Your task to perform on an android device: turn on notifications settings in the gmail app Image 0: 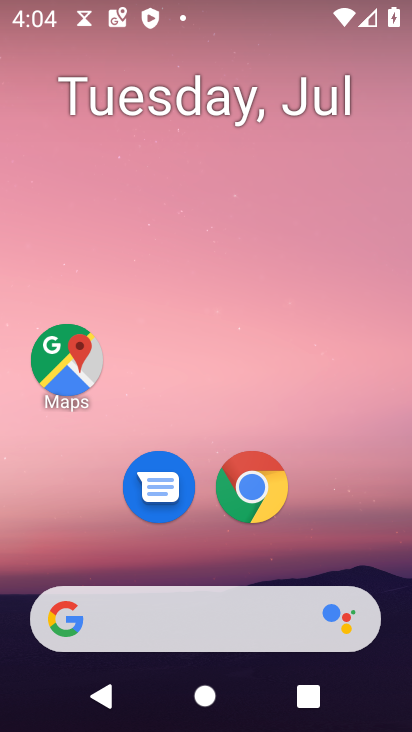
Step 0: drag from (206, 545) to (265, 67)
Your task to perform on an android device: turn on notifications settings in the gmail app Image 1: 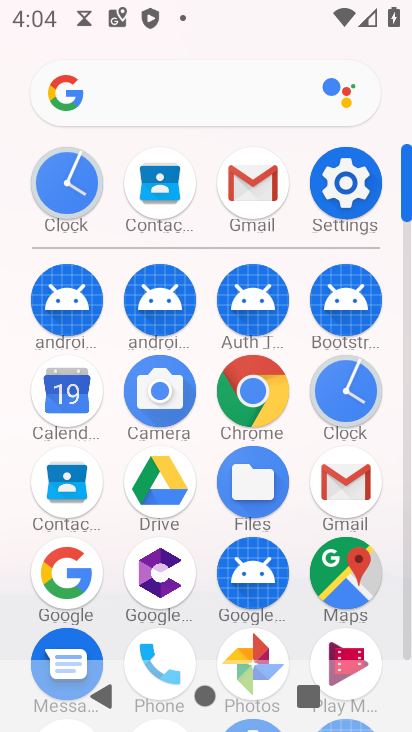
Step 1: click (257, 168)
Your task to perform on an android device: turn on notifications settings in the gmail app Image 2: 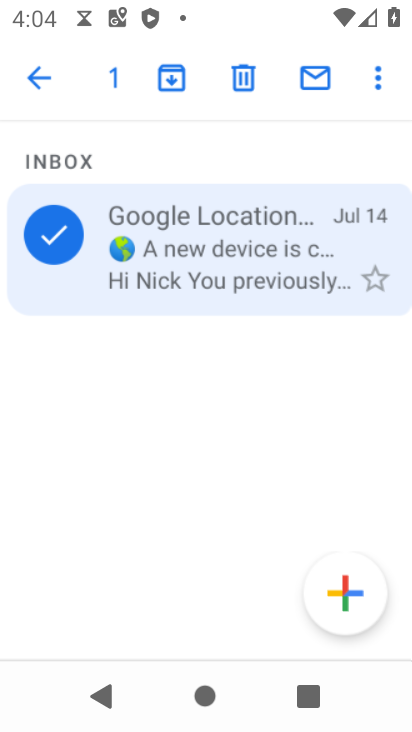
Step 2: click (36, 62)
Your task to perform on an android device: turn on notifications settings in the gmail app Image 3: 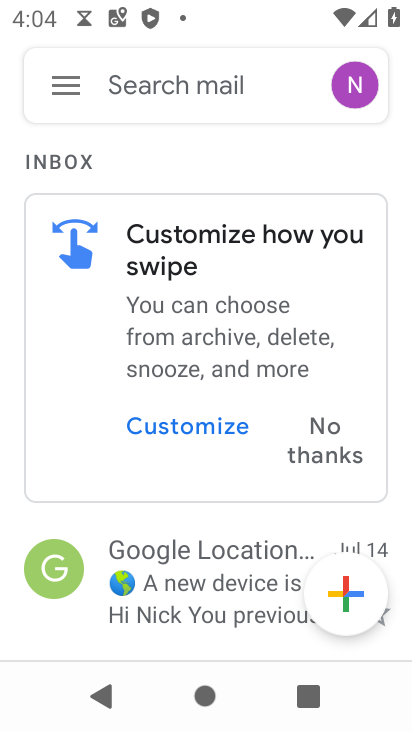
Step 3: press back button
Your task to perform on an android device: turn on notifications settings in the gmail app Image 4: 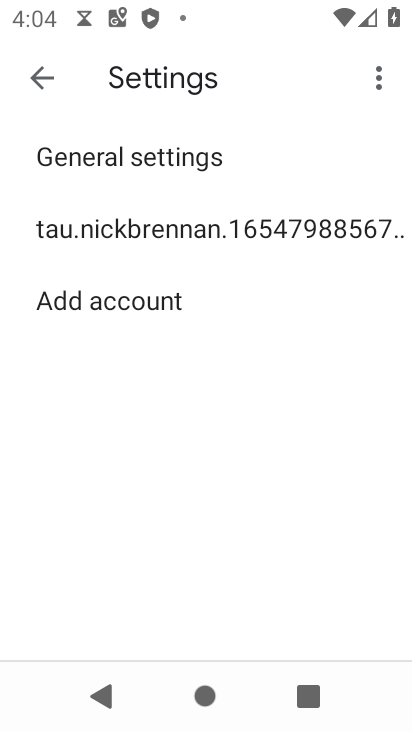
Step 4: press back button
Your task to perform on an android device: turn on notifications settings in the gmail app Image 5: 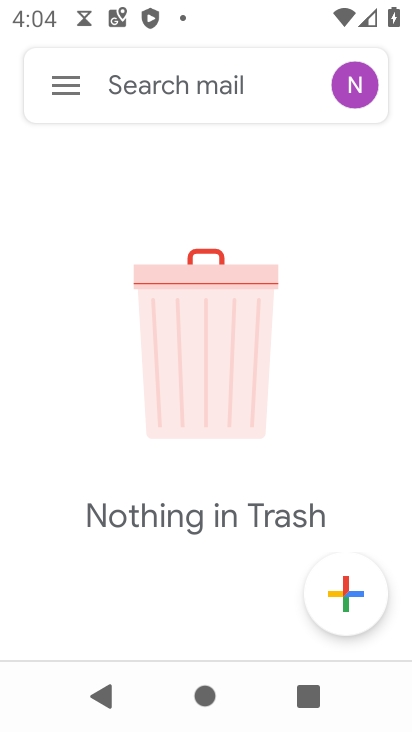
Step 5: press back button
Your task to perform on an android device: turn on notifications settings in the gmail app Image 6: 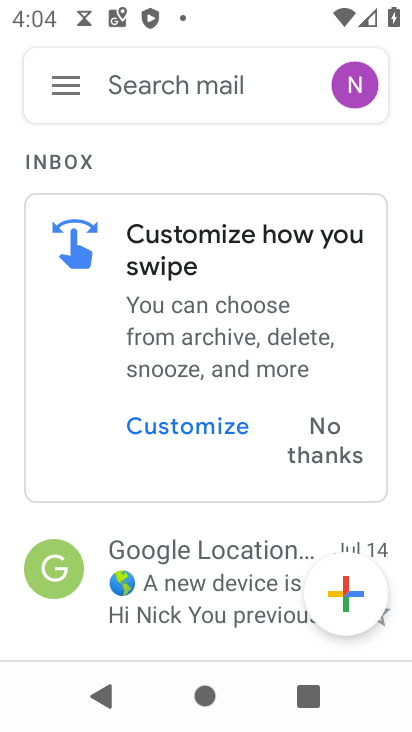
Step 6: press back button
Your task to perform on an android device: turn on notifications settings in the gmail app Image 7: 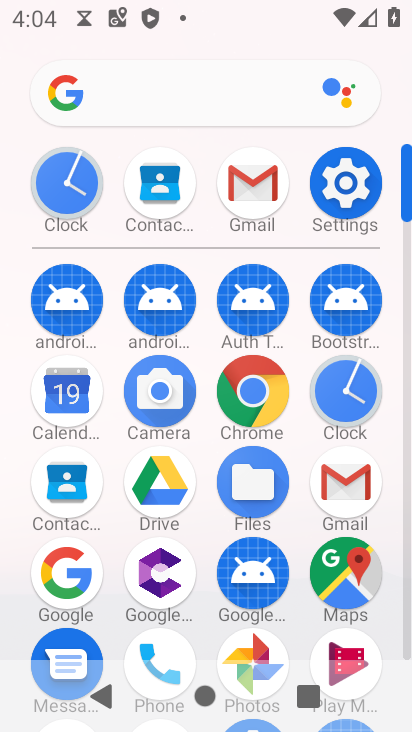
Step 7: click (251, 174)
Your task to perform on an android device: turn on notifications settings in the gmail app Image 8: 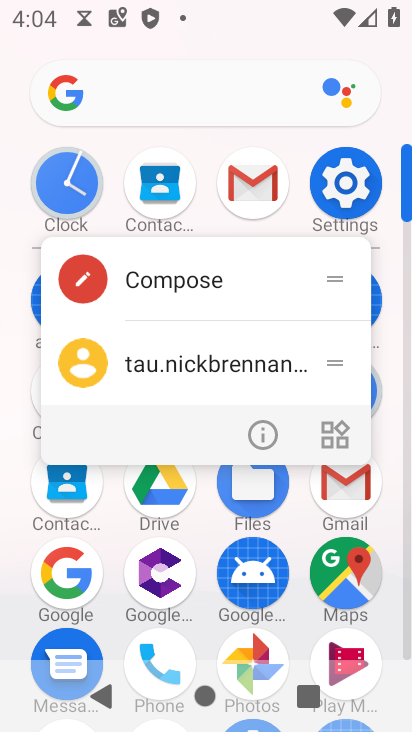
Step 8: click (264, 432)
Your task to perform on an android device: turn on notifications settings in the gmail app Image 9: 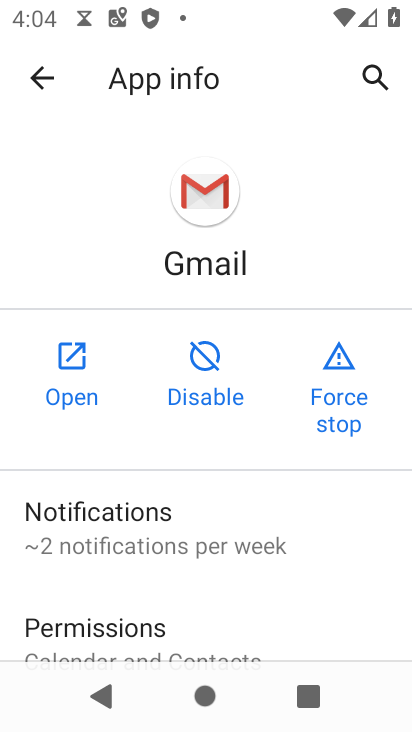
Step 9: click (159, 524)
Your task to perform on an android device: turn on notifications settings in the gmail app Image 10: 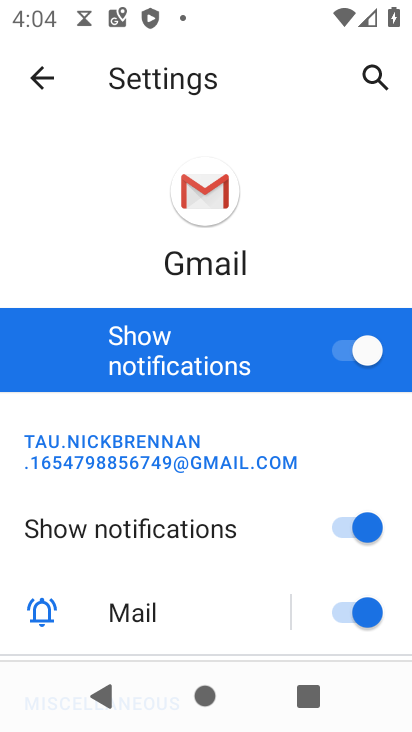
Step 10: task complete